Your task to perform on an android device: Open location settings Image 0: 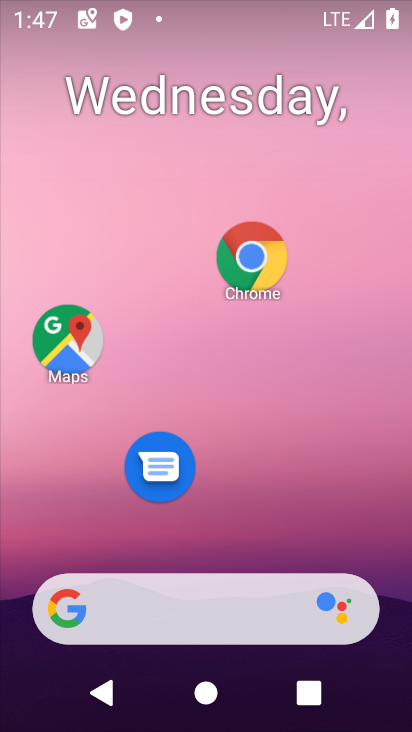
Step 0: drag from (286, 529) to (340, 102)
Your task to perform on an android device: Open location settings Image 1: 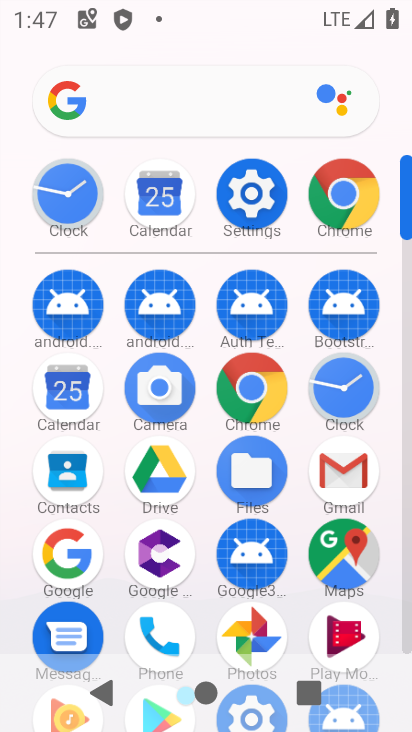
Step 1: click (250, 203)
Your task to perform on an android device: Open location settings Image 2: 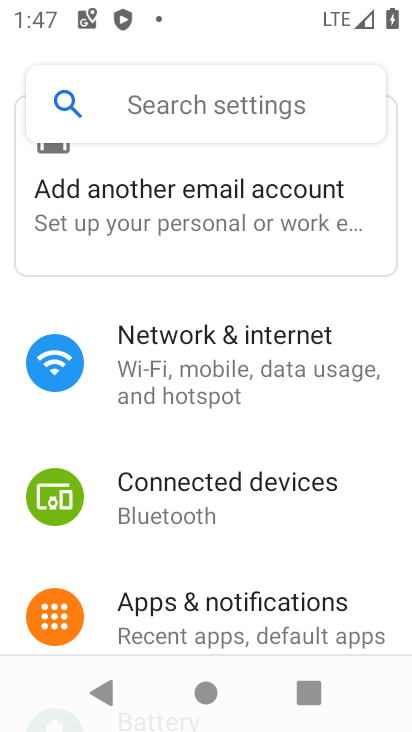
Step 2: drag from (302, 551) to (281, 159)
Your task to perform on an android device: Open location settings Image 3: 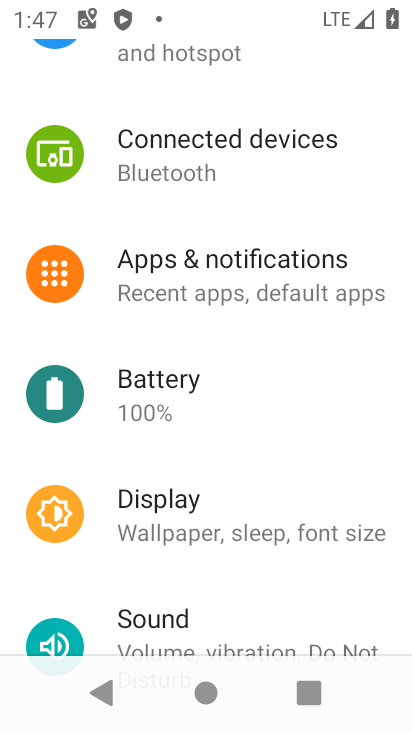
Step 3: drag from (291, 607) to (307, 123)
Your task to perform on an android device: Open location settings Image 4: 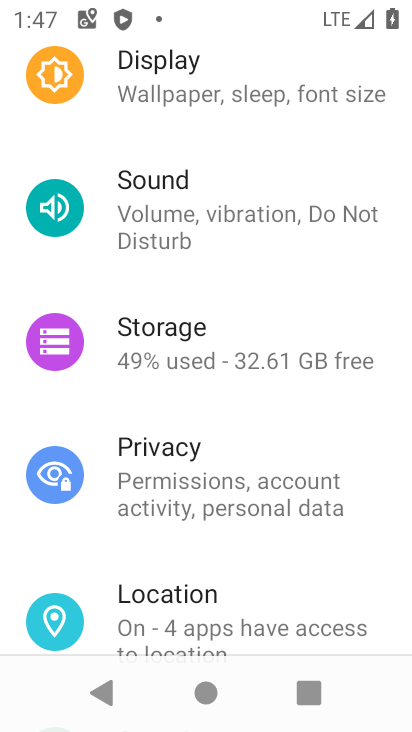
Step 4: click (183, 611)
Your task to perform on an android device: Open location settings Image 5: 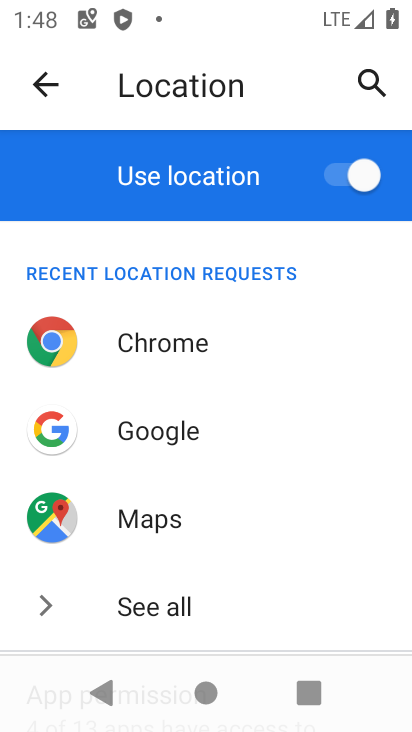
Step 5: task complete